Your task to perform on an android device: Is it going to rain tomorrow? Image 0: 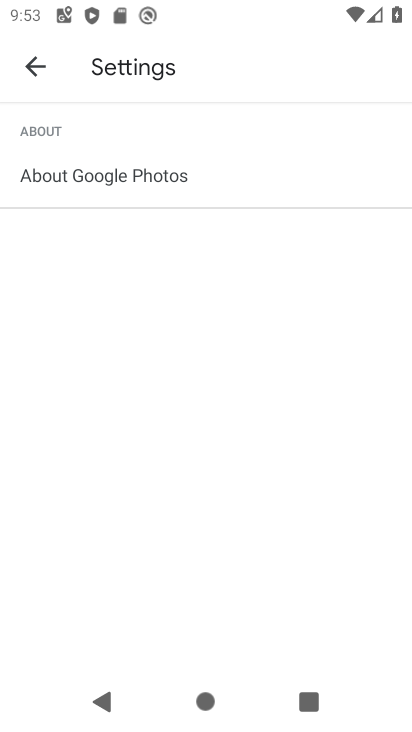
Step 0: press home button
Your task to perform on an android device: Is it going to rain tomorrow? Image 1: 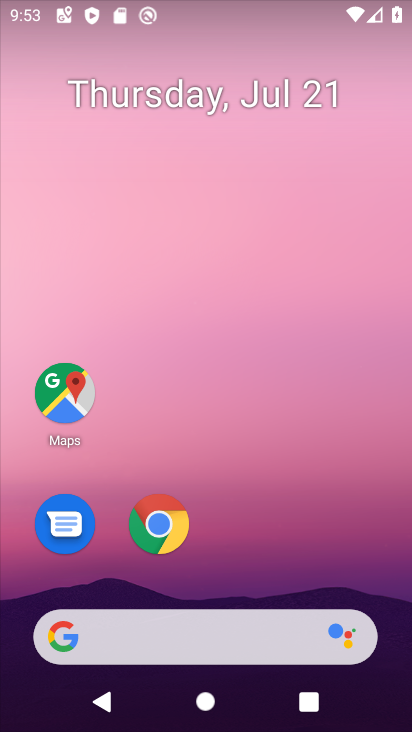
Step 1: click (143, 629)
Your task to perform on an android device: Is it going to rain tomorrow? Image 2: 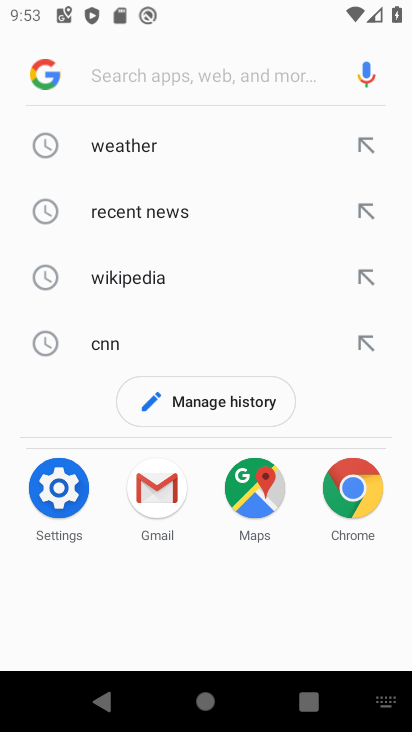
Step 2: click (123, 135)
Your task to perform on an android device: Is it going to rain tomorrow? Image 3: 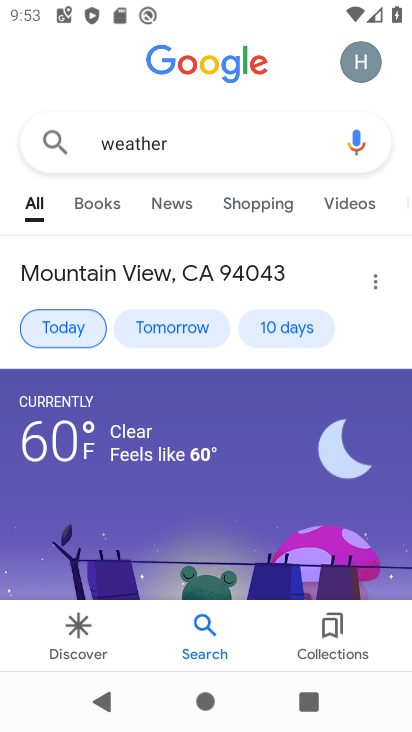
Step 3: click (163, 333)
Your task to perform on an android device: Is it going to rain tomorrow? Image 4: 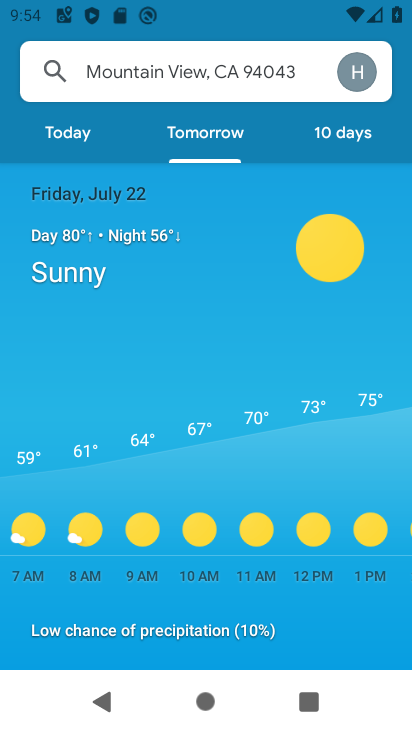
Step 4: task complete